Your task to perform on an android device: Open network settings Image 0: 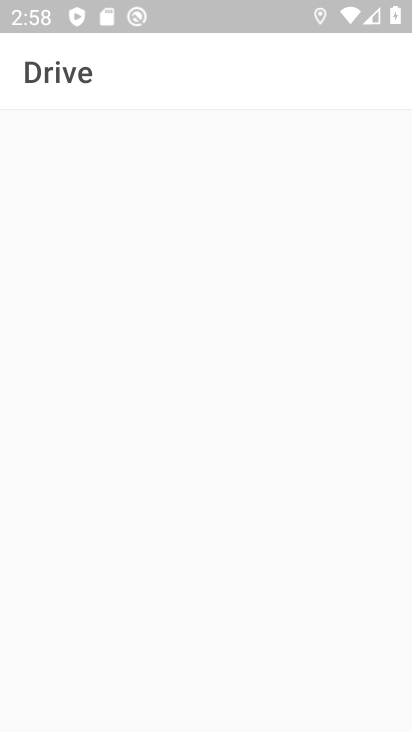
Step 0: press home button
Your task to perform on an android device: Open network settings Image 1: 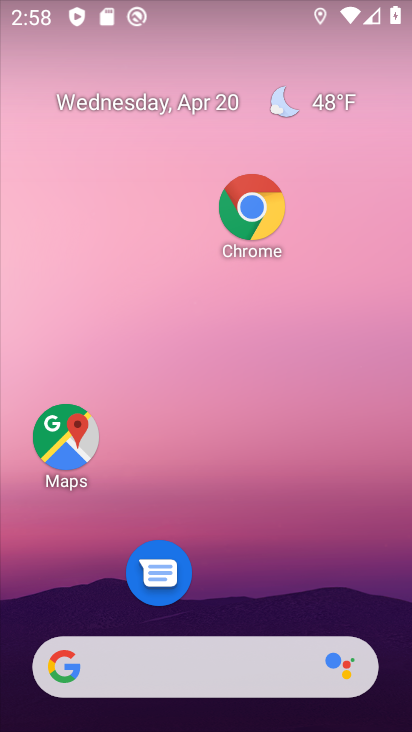
Step 1: drag from (246, 626) to (267, 383)
Your task to perform on an android device: Open network settings Image 2: 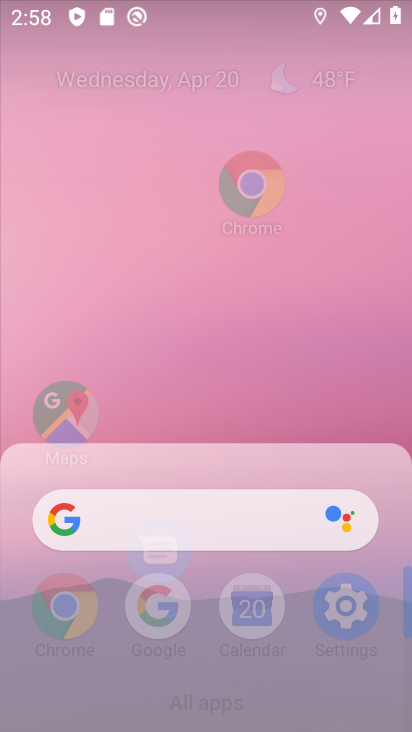
Step 2: drag from (284, 178) to (290, 143)
Your task to perform on an android device: Open network settings Image 3: 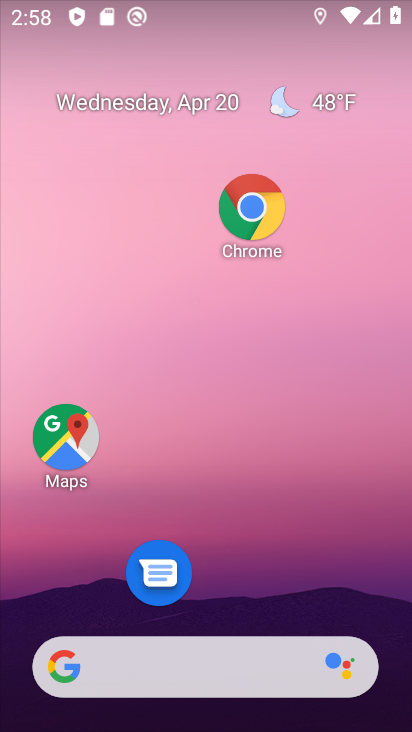
Step 3: drag from (261, 630) to (395, 23)
Your task to perform on an android device: Open network settings Image 4: 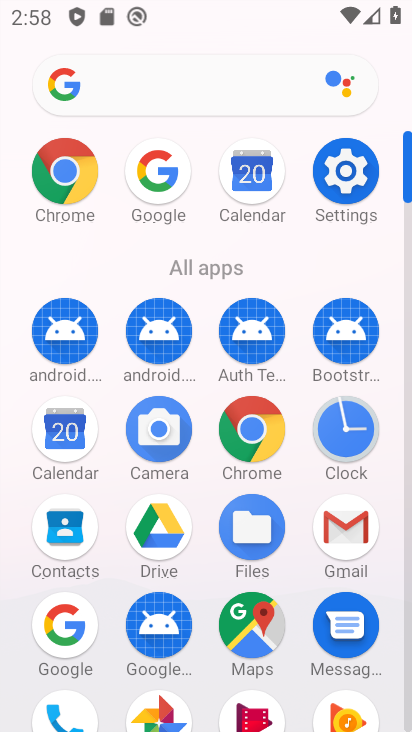
Step 4: click (354, 195)
Your task to perform on an android device: Open network settings Image 5: 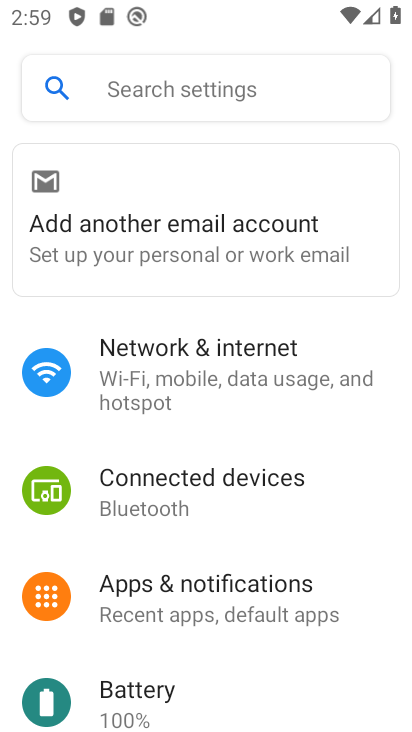
Step 5: click (236, 388)
Your task to perform on an android device: Open network settings Image 6: 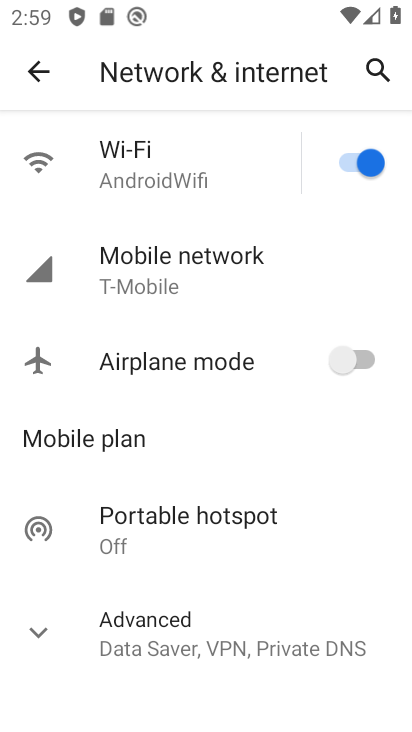
Step 6: click (220, 265)
Your task to perform on an android device: Open network settings Image 7: 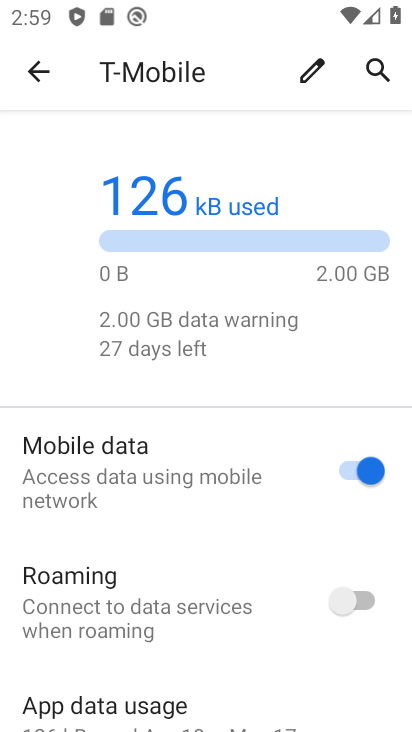
Step 7: task complete